Your task to perform on an android device: set the stopwatch Image 0: 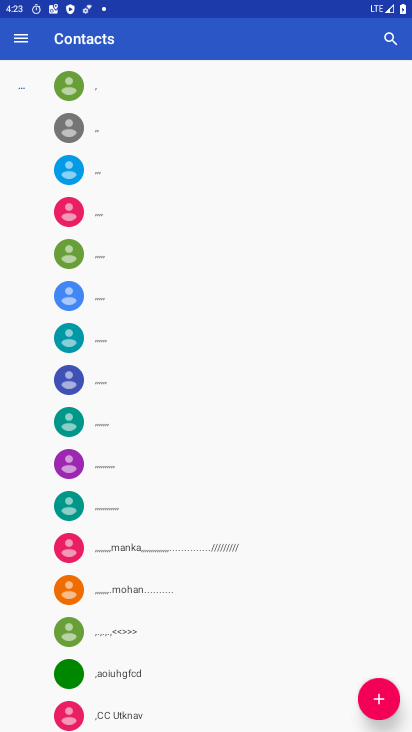
Step 0: press home button
Your task to perform on an android device: set the stopwatch Image 1: 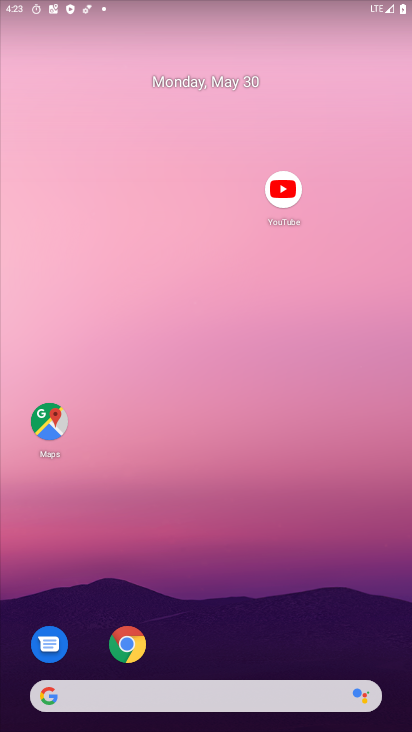
Step 1: drag from (180, 653) to (119, 244)
Your task to perform on an android device: set the stopwatch Image 2: 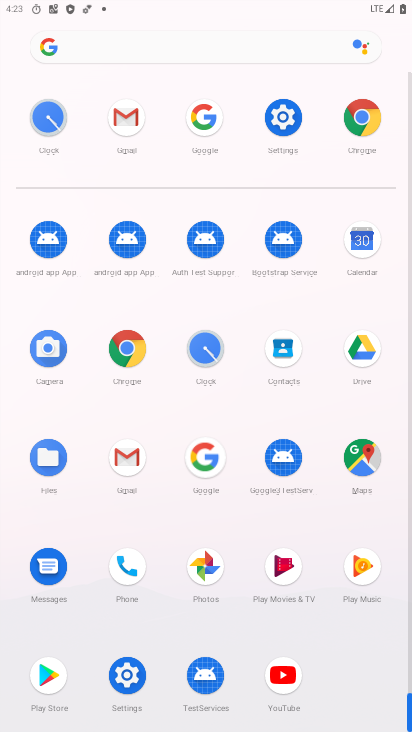
Step 2: click (48, 127)
Your task to perform on an android device: set the stopwatch Image 3: 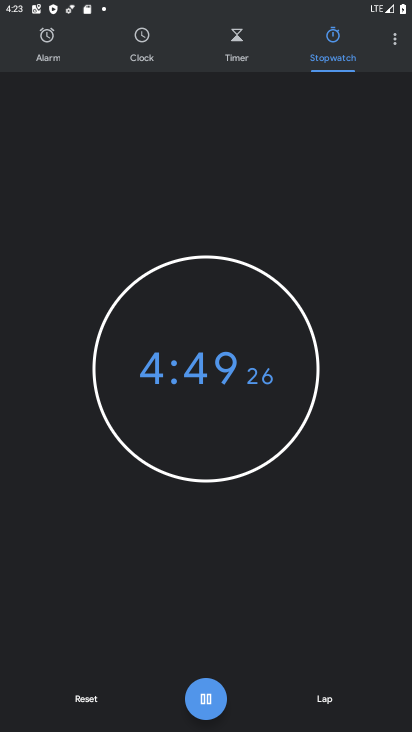
Step 3: task complete